Your task to perform on an android device: Go to eBay Image 0: 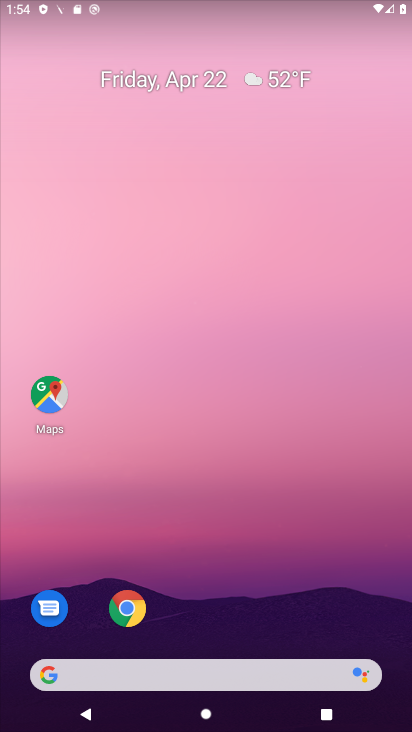
Step 0: drag from (284, 604) to (239, 90)
Your task to perform on an android device: Go to eBay Image 1: 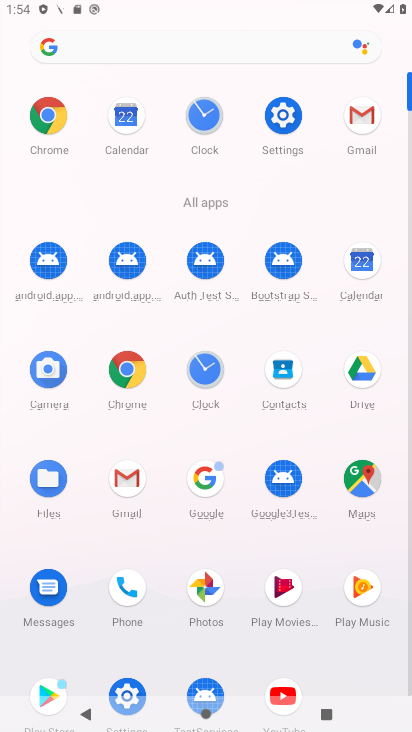
Step 1: click (48, 118)
Your task to perform on an android device: Go to eBay Image 2: 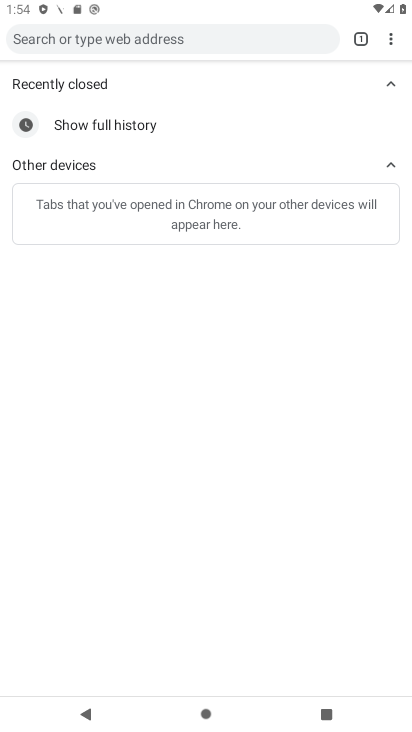
Step 2: press back button
Your task to perform on an android device: Go to eBay Image 3: 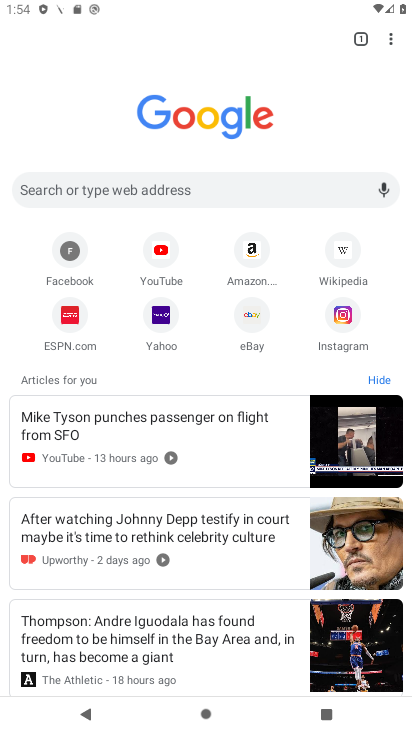
Step 3: click (245, 318)
Your task to perform on an android device: Go to eBay Image 4: 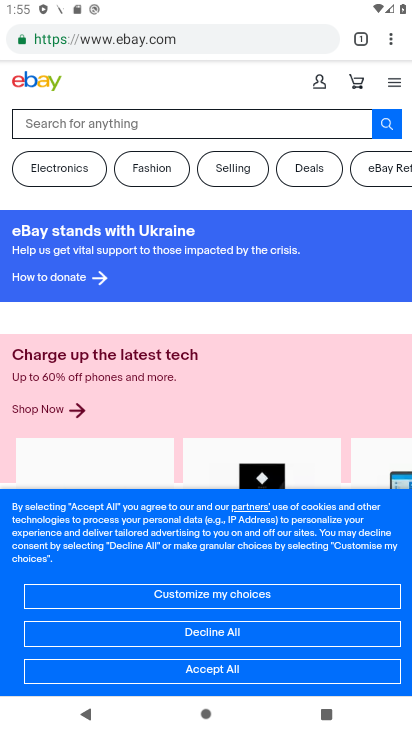
Step 4: task complete